Your task to perform on an android device: set the stopwatch Image 0: 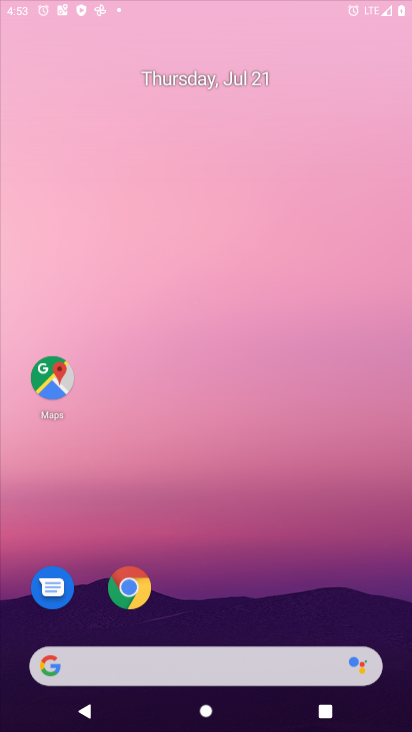
Step 0: press home button
Your task to perform on an android device: set the stopwatch Image 1: 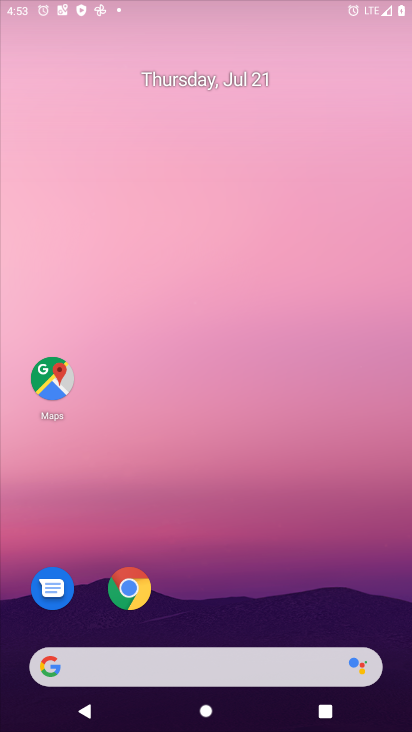
Step 1: drag from (270, 701) to (319, 176)
Your task to perform on an android device: set the stopwatch Image 2: 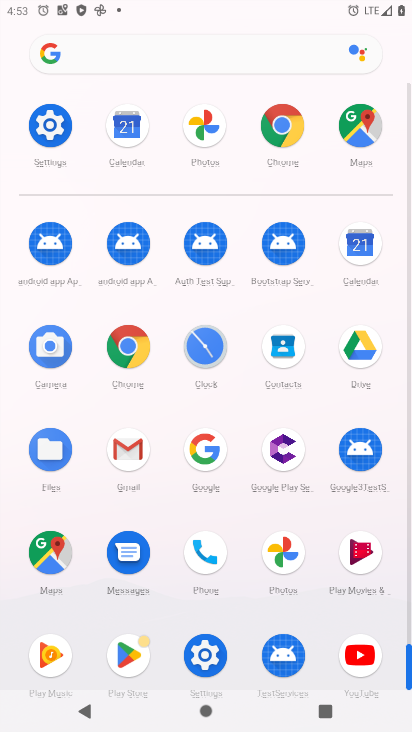
Step 2: click (202, 355)
Your task to perform on an android device: set the stopwatch Image 3: 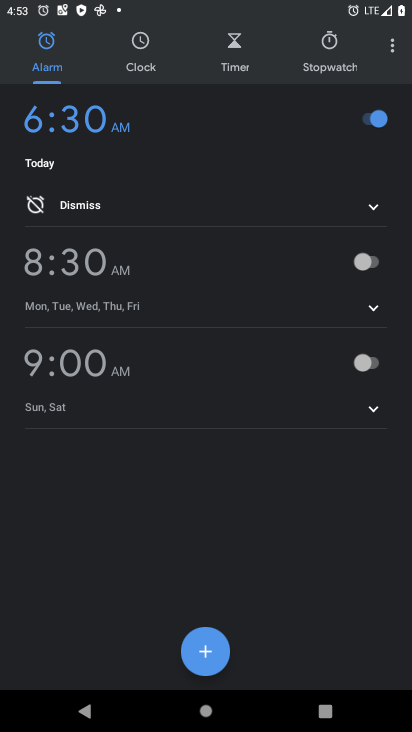
Step 3: click (349, 66)
Your task to perform on an android device: set the stopwatch Image 4: 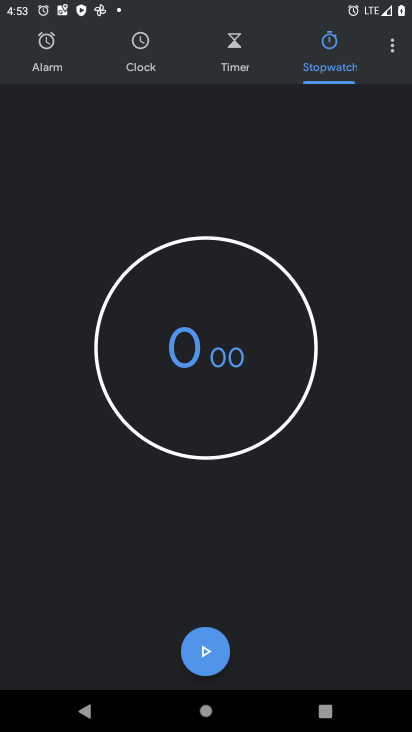
Step 4: click (207, 660)
Your task to perform on an android device: set the stopwatch Image 5: 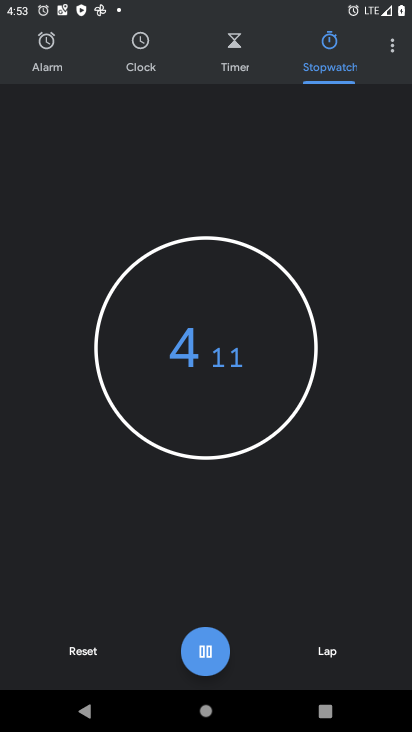
Step 5: task complete